Your task to perform on an android device: Go to display settings Image 0: 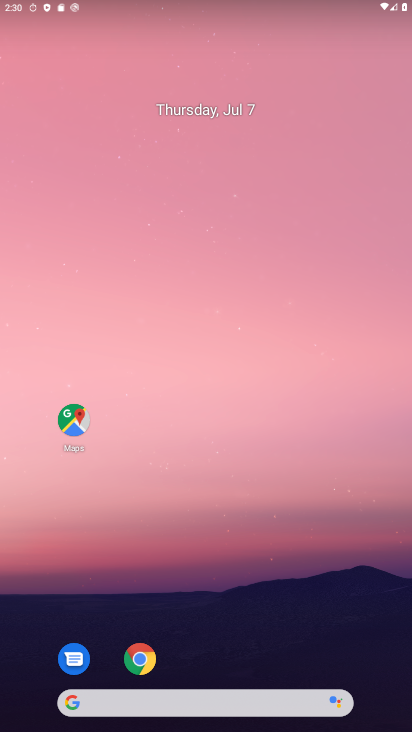
Step 0: drag from (95, 566) to (311, 86)
Your task to perform on an android device: Go to display settings Image 1: 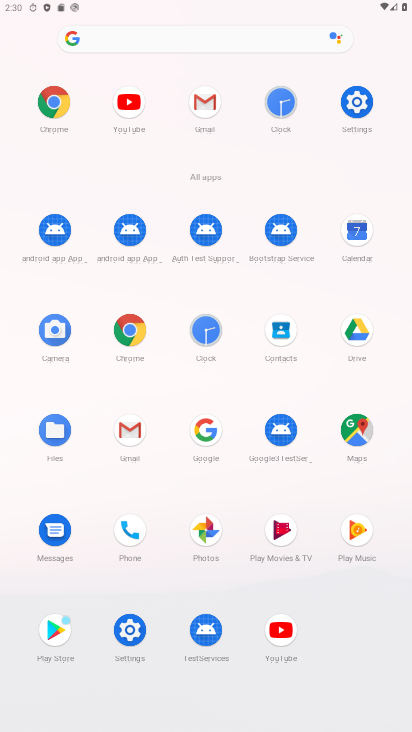
Step 1: click (130, 640)
Your task to perform on an android device: Go to display settings Image 2: 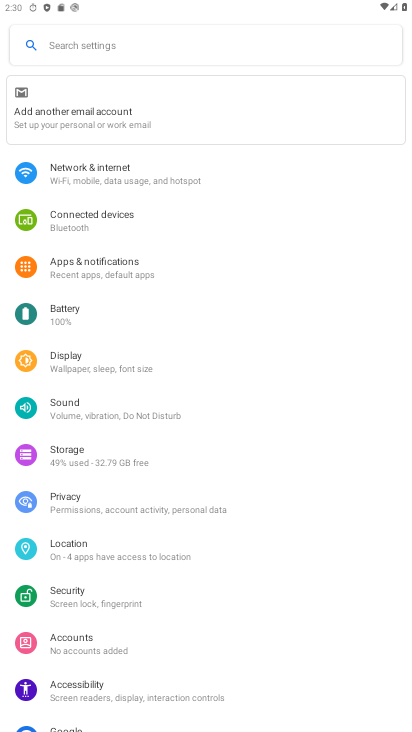
Step 2: click (86, 355)
Your task to perform on an android device: Go to display settings Image 3: 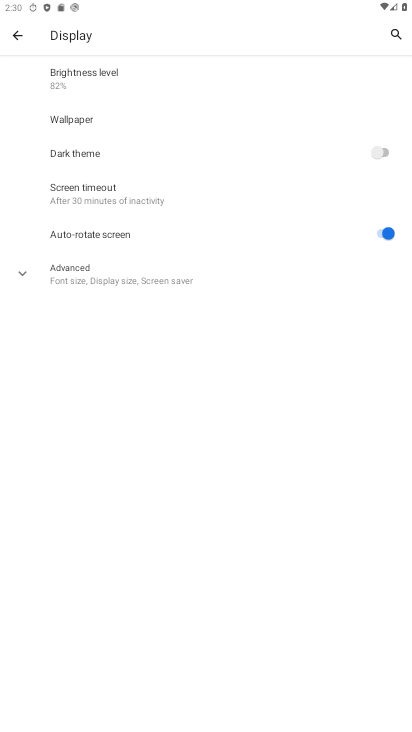
Step 3: task complete